Your task to perform on an android device: show emergency info Image 0: 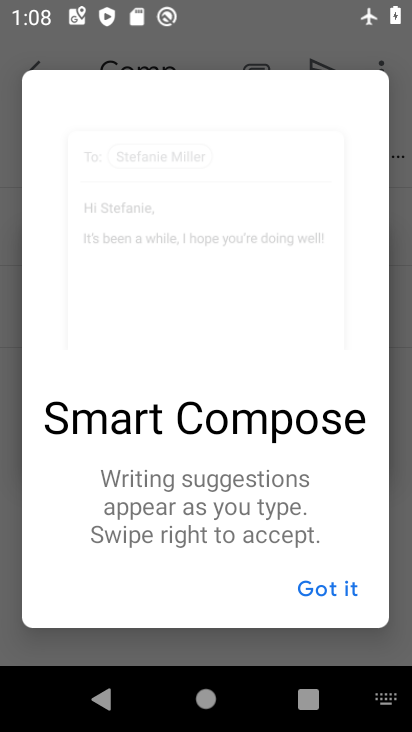
Step 0: press home button
Your task to perform on an android device: show emergency info Image 1: 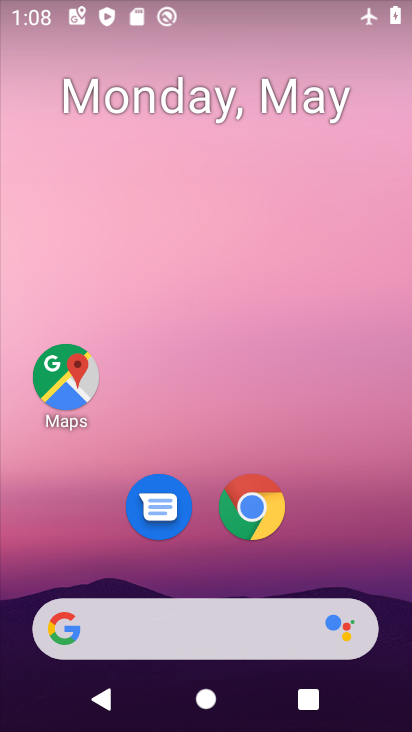
Step 1: drag from (223, 685) to (217, 102)
Your task to perform on an android device: show emergency info Image 2: 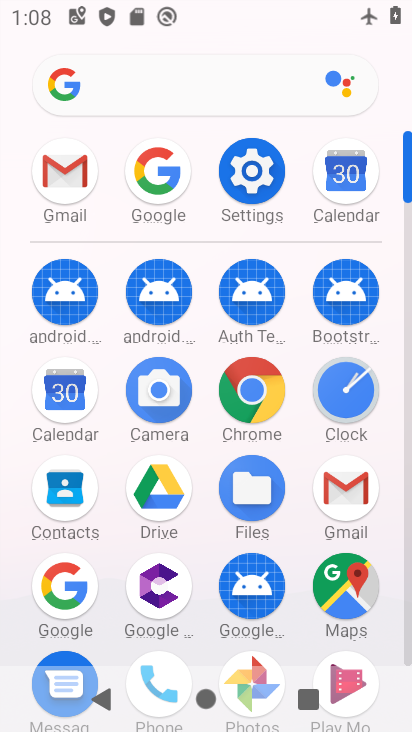
Step 2: click (256, 177)
Your task to perform on an android device: show emergency info Image 3: 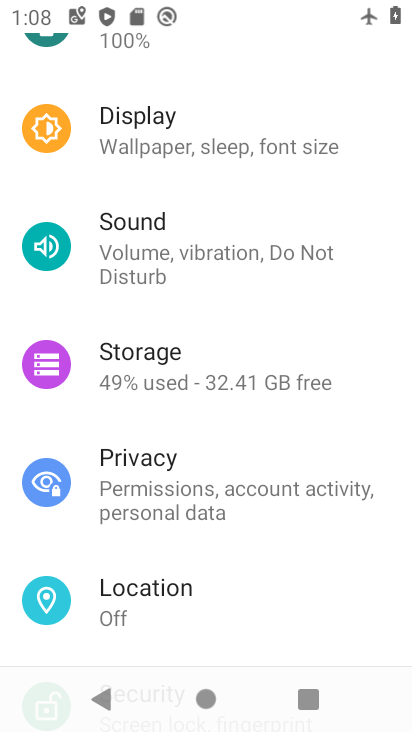
Step 3: drag from (142, 637) to (148, 226)
Your task to perform on an android device: show emergency info Image 4: 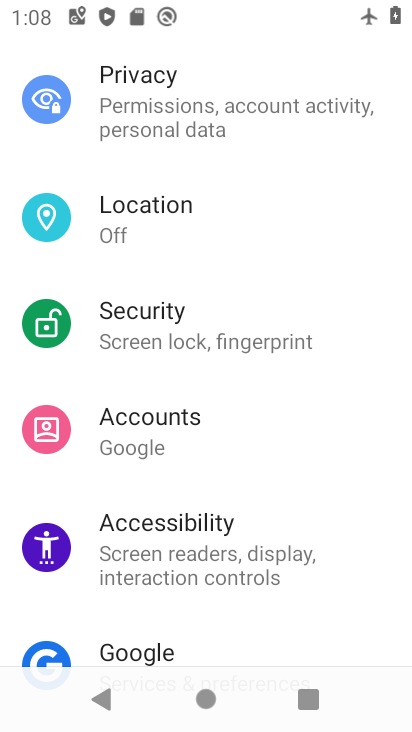
Step 4: drag from (194, 632) to (198, 198)
Your task to perform on an android device: show emergency info Image 5: 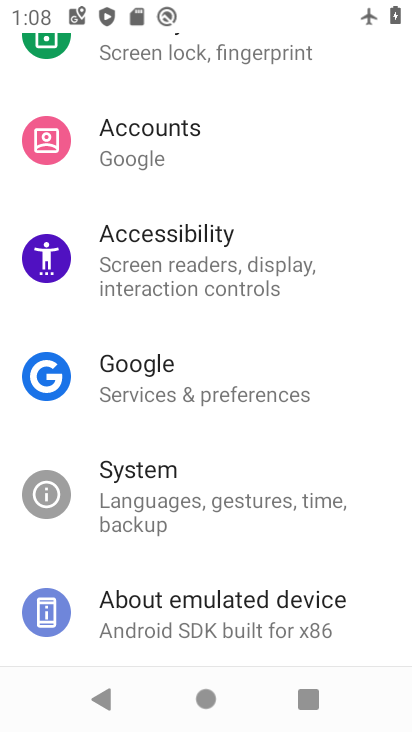
Step 5: drag from (198, 625) to (198, 227)
Your task to perform on an android device: show emergency info Image 6: 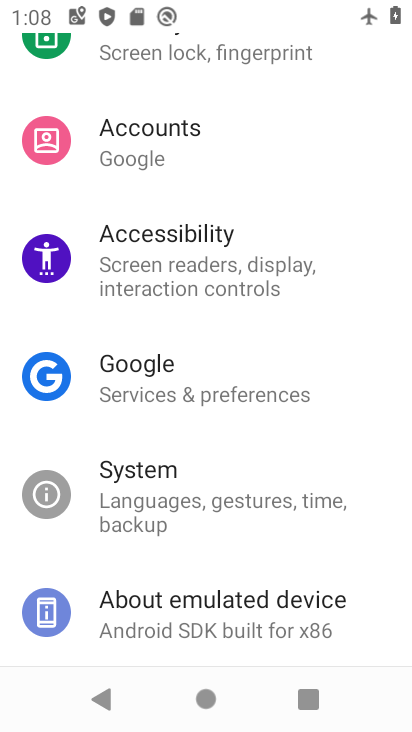
Step 6: click (241, 614)
Your task to perform on an android device: show emergency info Image 7: 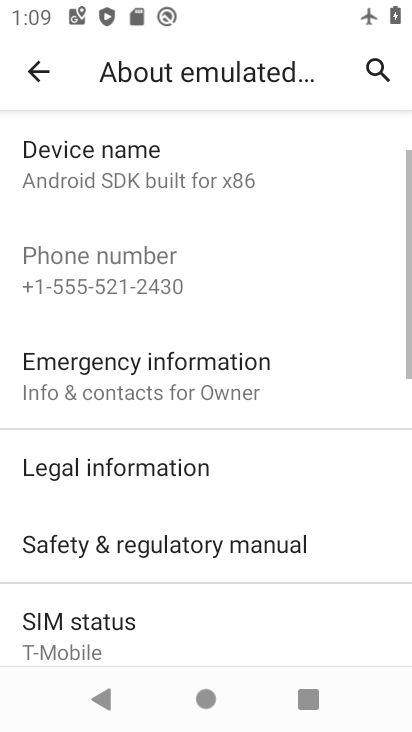
Step 7: click (147, 370)
Your task to perform on an android device: show emergency info Image 8: 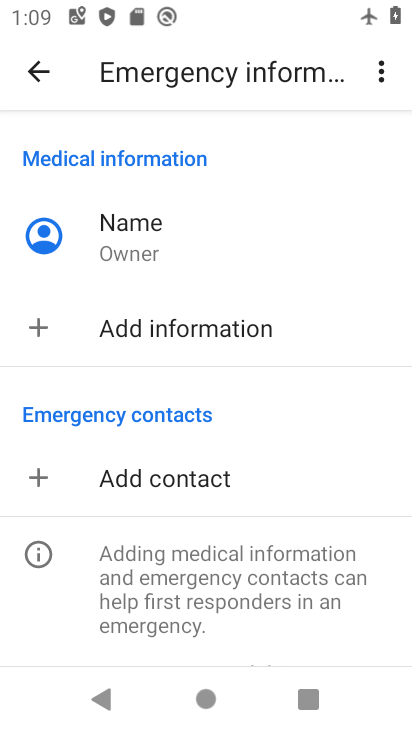
Step 8: task complete